Your task to perform on an android device: Open CNN.com Image 0: 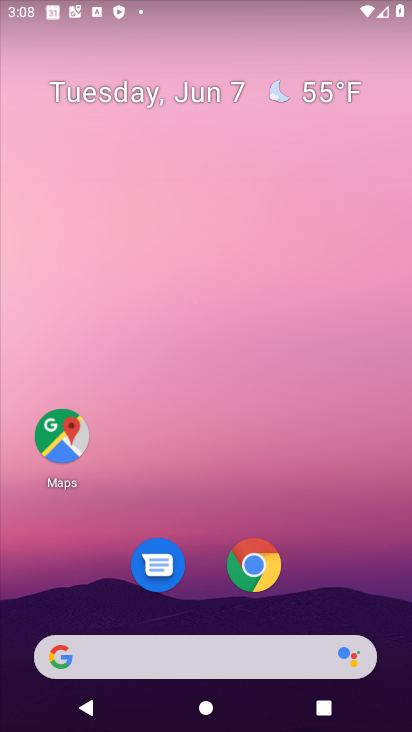
Step 0: drag from (323, 623) to (313, 83)
Your task to perform on an android device: Open CNN.com Image 1: 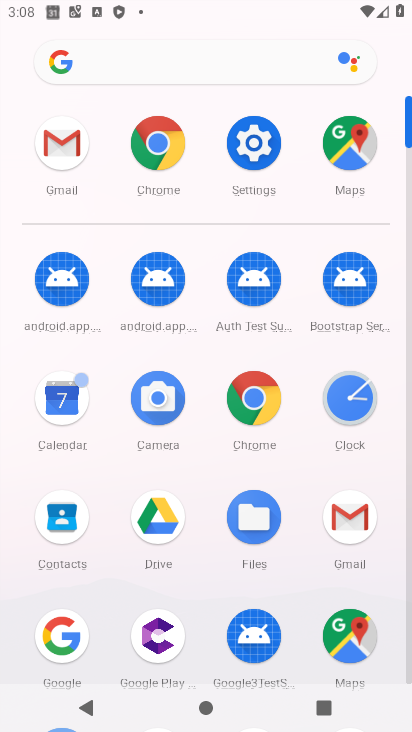
Step 1: click (256, 405)
Your task to perform on an android device: Open CNN.com Image 2: 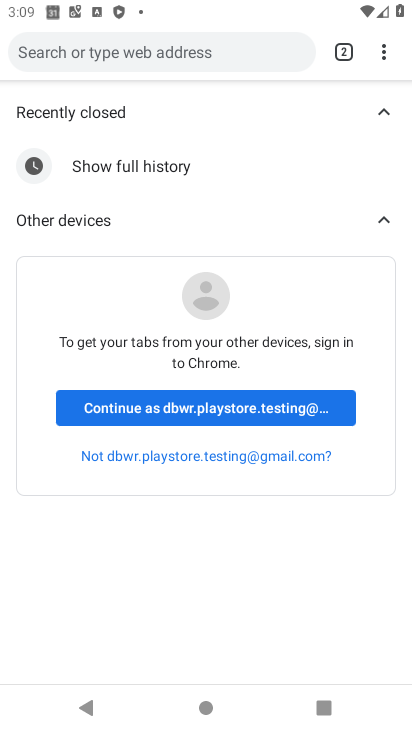
Step 2: click (190, 62)
Your task to perform on an android device: Open CNN.com Image 3: 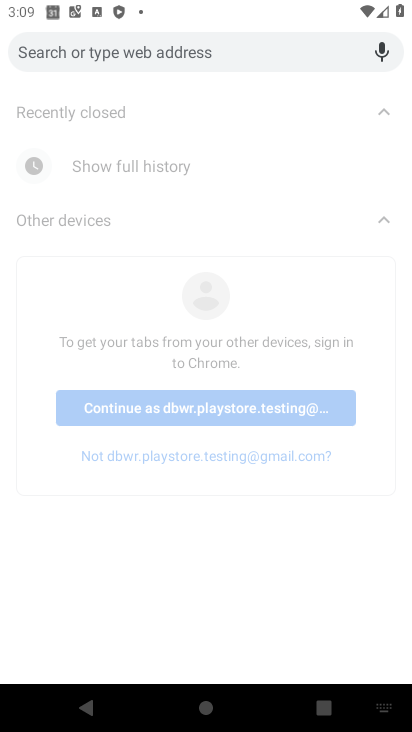
Step 3: type "cnn.com"
Your task to perform on an android device: Open CNN.com Image 4: 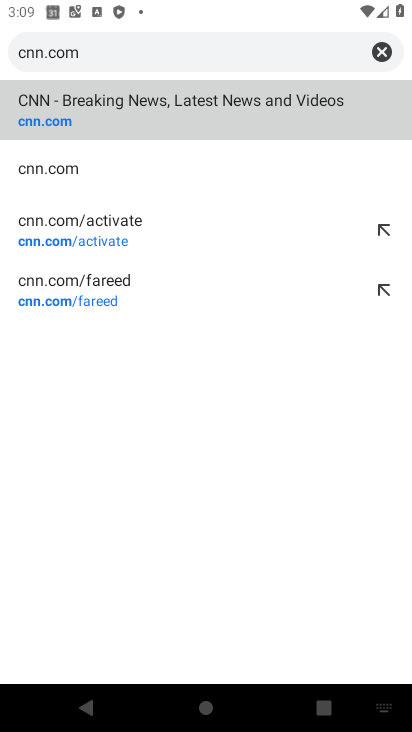
Step 4: click (179, 114)
Your task to perform on an android device: Open CNN.com Image 5: 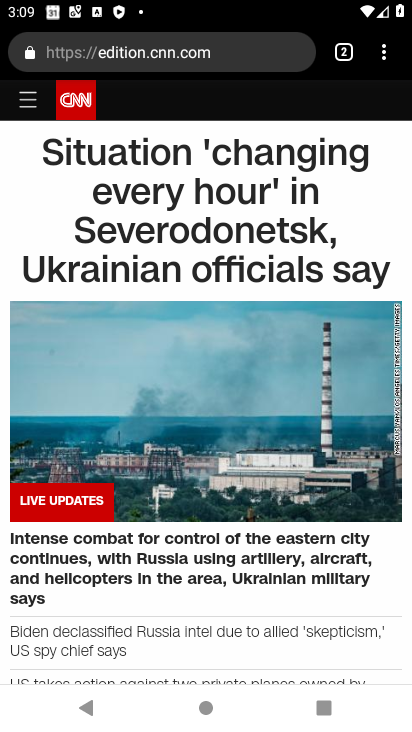
Step 5: task complete